Your task to perform on an android device: move an email to a new category in the gmail app Image 0: 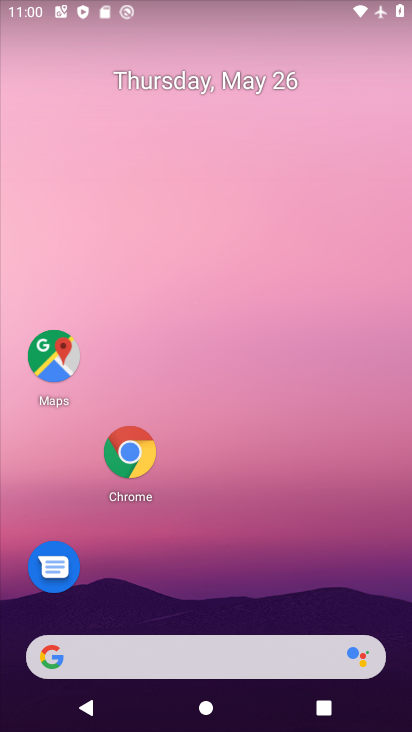
Step 0: drag from (175, 647) to (294, 159)
Your task to perform on an android device: move an email to a new category in the gmail app Image 1: 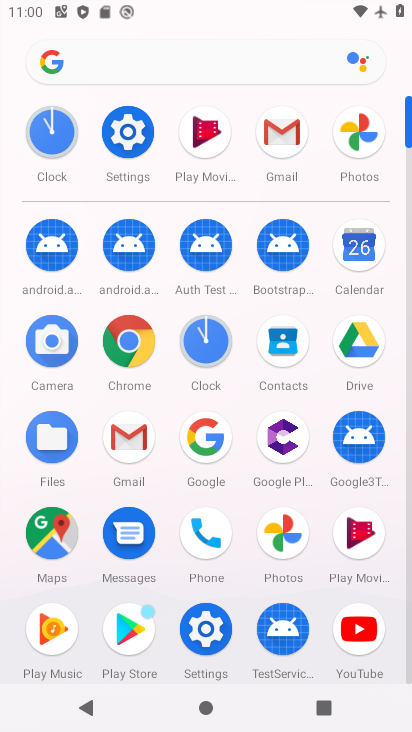
Step 1: click (281, 138)
Your task to perform on an android device: move an email to a new category in the gmail app Image 2: 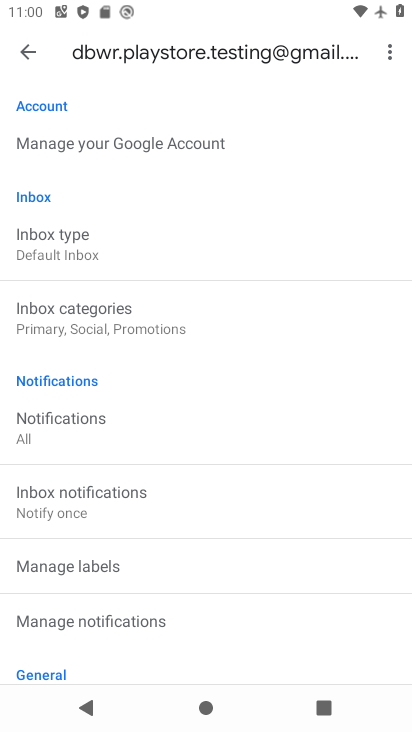
Step 2: click (28, 45)
Your task to perform on an android device: move an email to a new category in the gmail app Image 3: 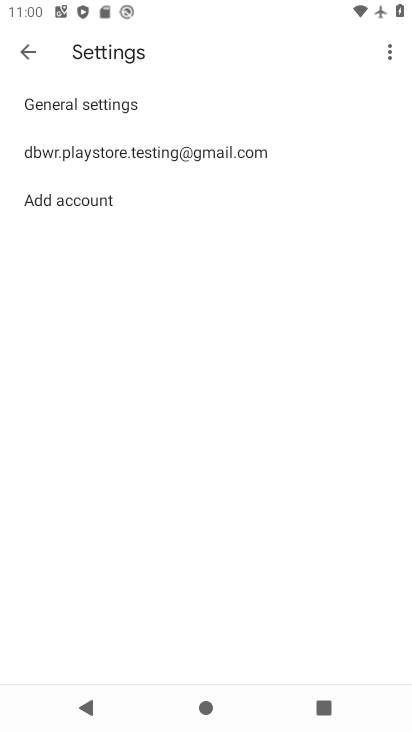
Step 3: click (28, 46)
Your task to perform on an android device: move an email to a new category in the gmail app Image 4: 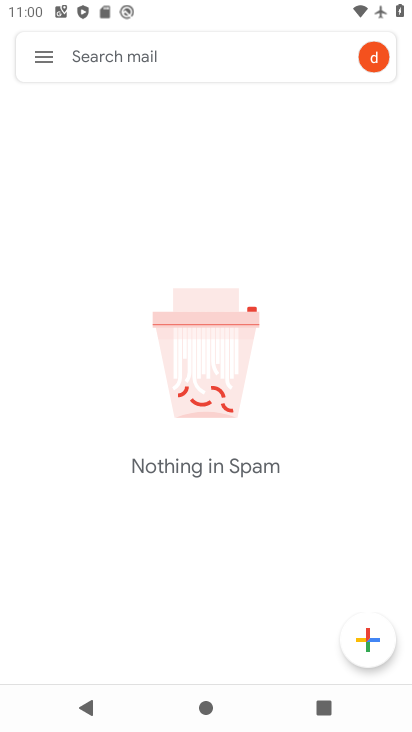
Step 4: click (47, 51)
Your task to perform on an android device: move an email to a new category in the gmail app Image 5: 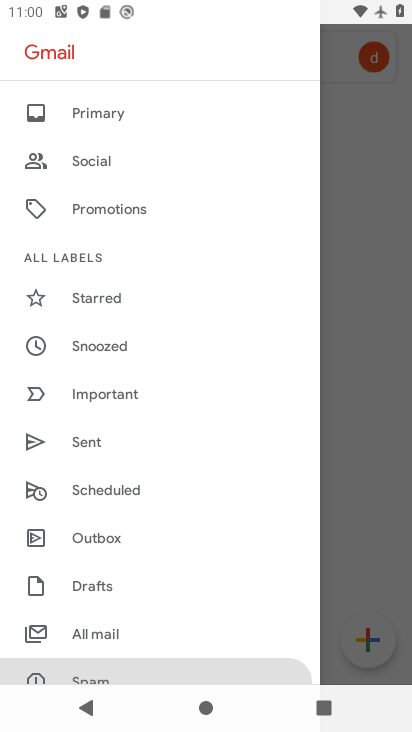
Step 5: click (110, 635)
Your task to perform on an android device: move an email to a new category in the gmail app Image 6: 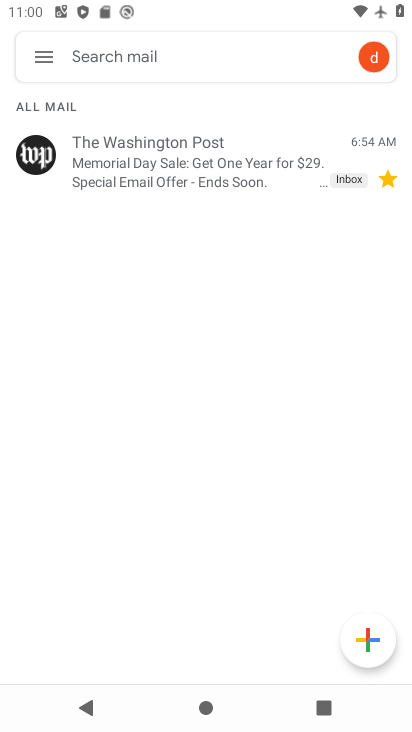
Step 6: click (47, 53)
Your task to perform on an android device: move an email to a new category in the gmail app Image 7: 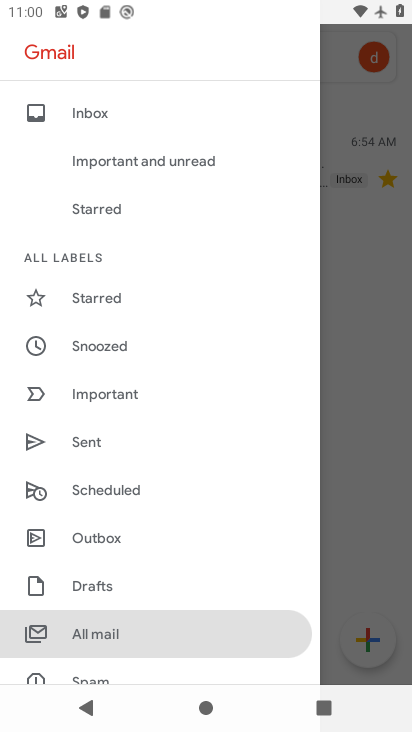
Step 7: drag from (165, 240) to (214, 553)
Your task to perform on an android device: move an email to a new category in the gmail app Image 8: 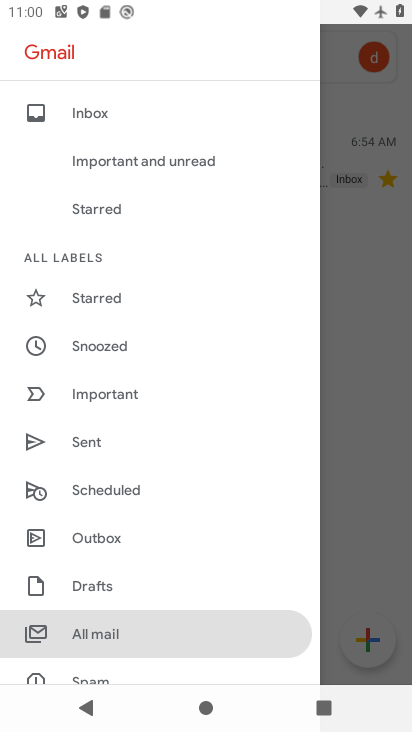
Step 8: click (131, 388)
Your task to perform on an android device: move an email to a new category in the gmail app Image 9: 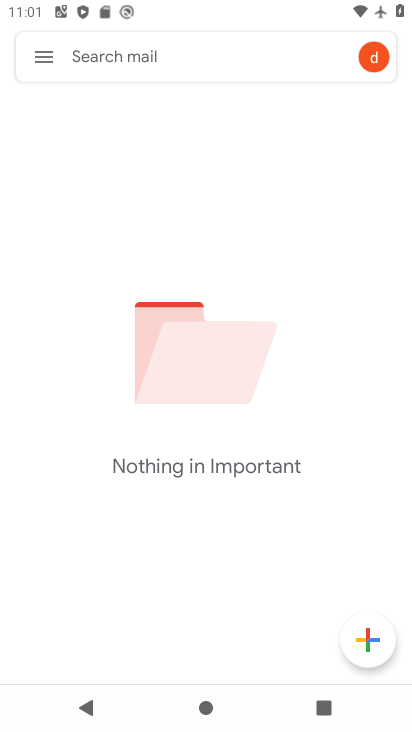
Step 9: click (41, 54)
Your task to perform on an android device: move an email to a new category in the gmail app Image 10: 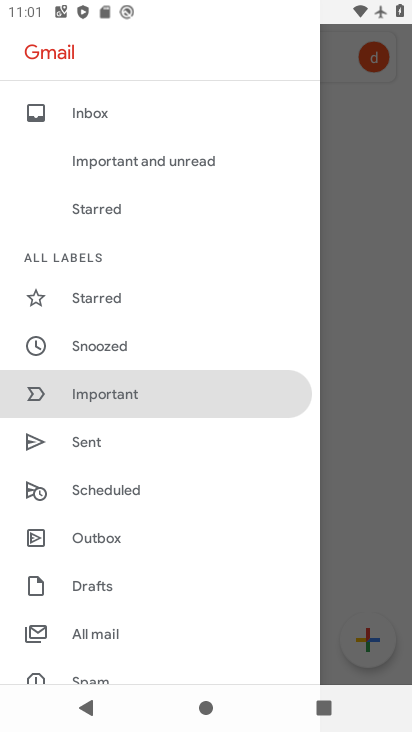
Step 10: click (104, 631)
Your task to perform on an android device: move an email to a new category in the gmail app Image 11: 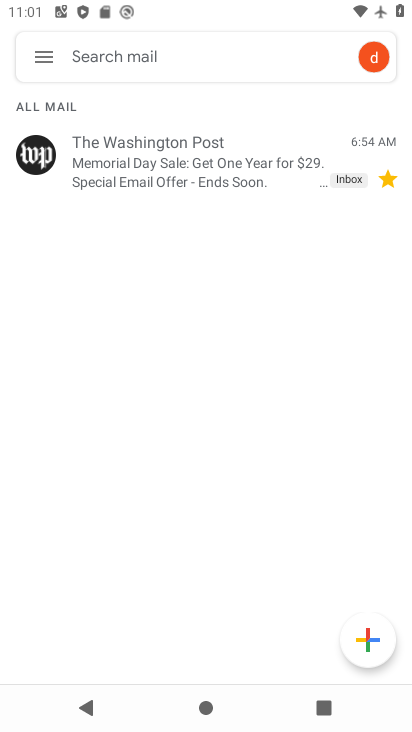
Step 11: click (46, 150)
Your task to perform on an android device: move an email to a new category in the gmail app Image 12: 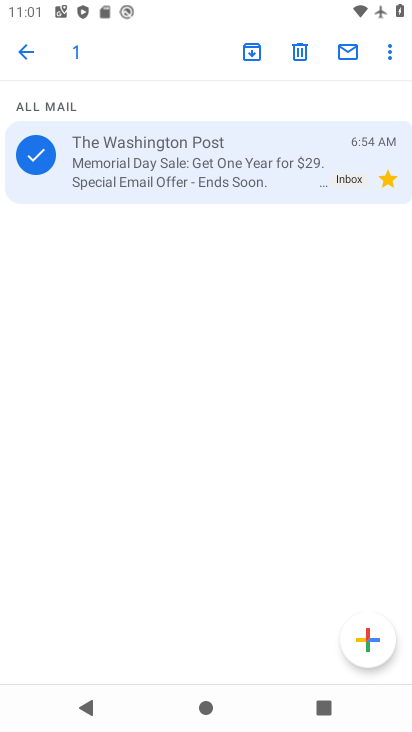
Step 12: click (386, 57)
Your task to perform on an android device: move an email to a new category in the gmail app Image 13: 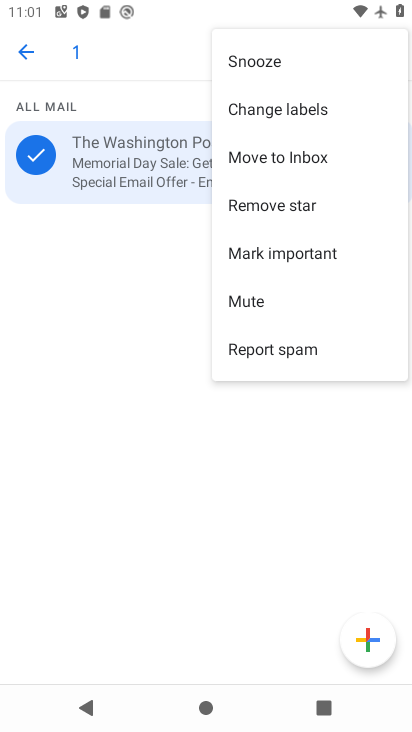
Step 13: click (260, 249)
Your task to perform on an android device: move an email to a new category in the gmail app Image 14: 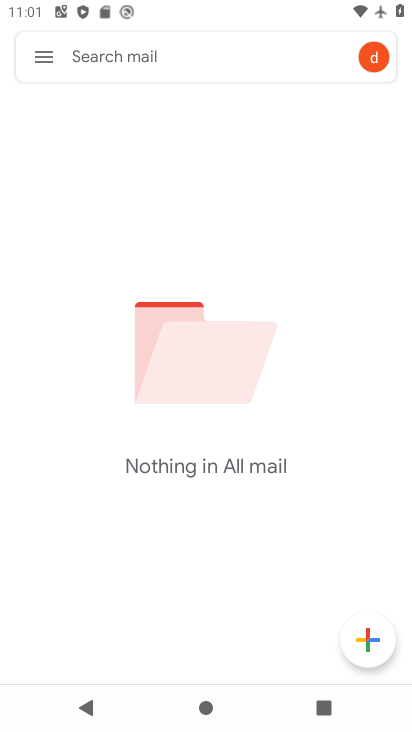
Step 14: task complete